Your task to perform on an android device: open app "Messages" Image 0: 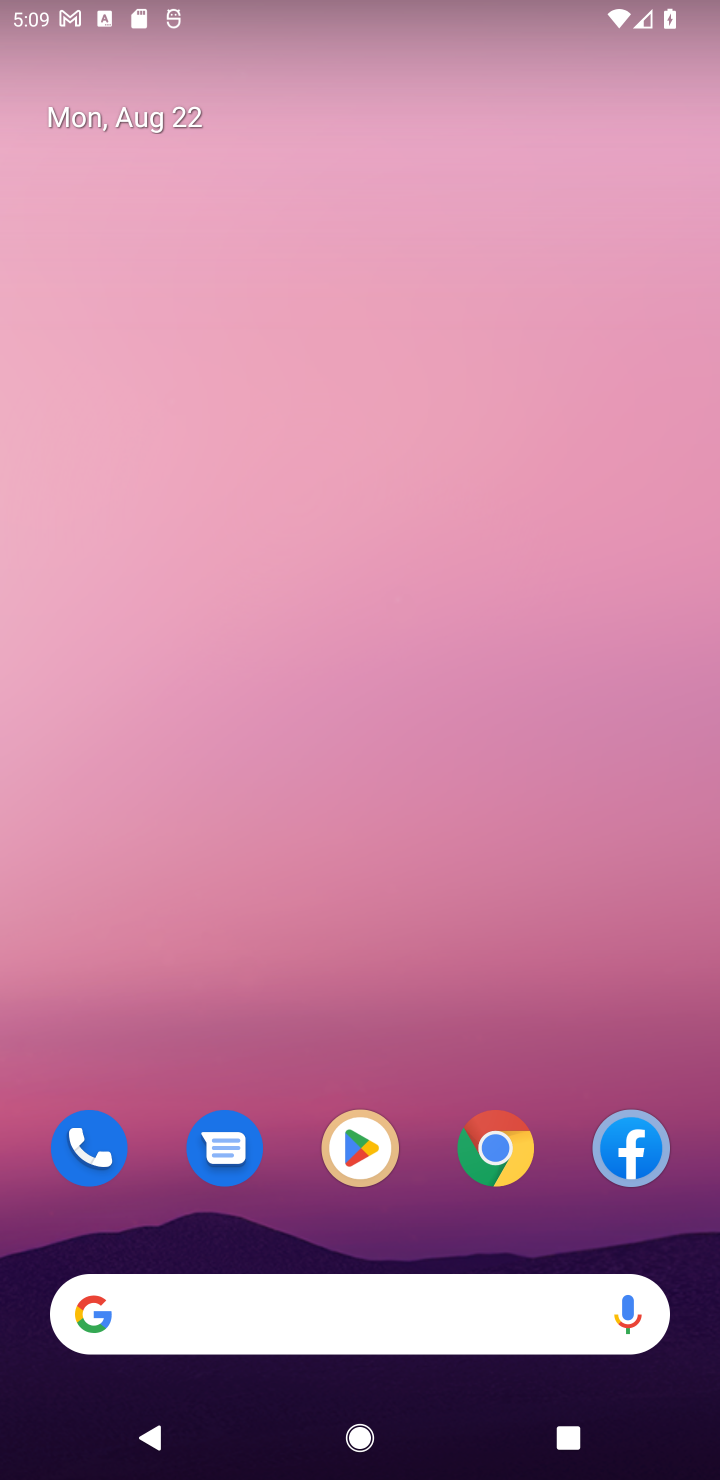
Step 0: drag from (397, 1109) to (455, 279)
Your task to perform on an android device: open app "Messages" Image 1: 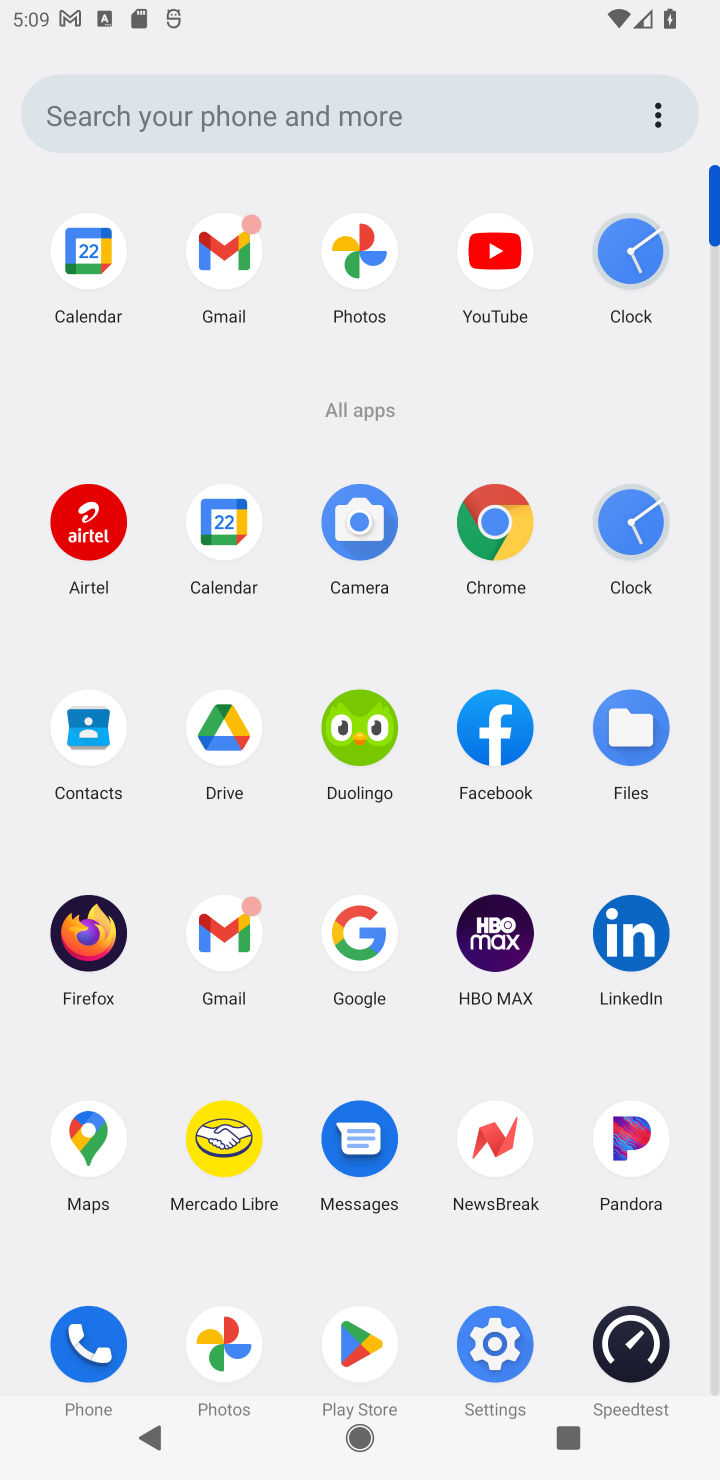
Step 1: click (356, 1150)
Your task to perform on an android device: open app "Messages" Image 2: 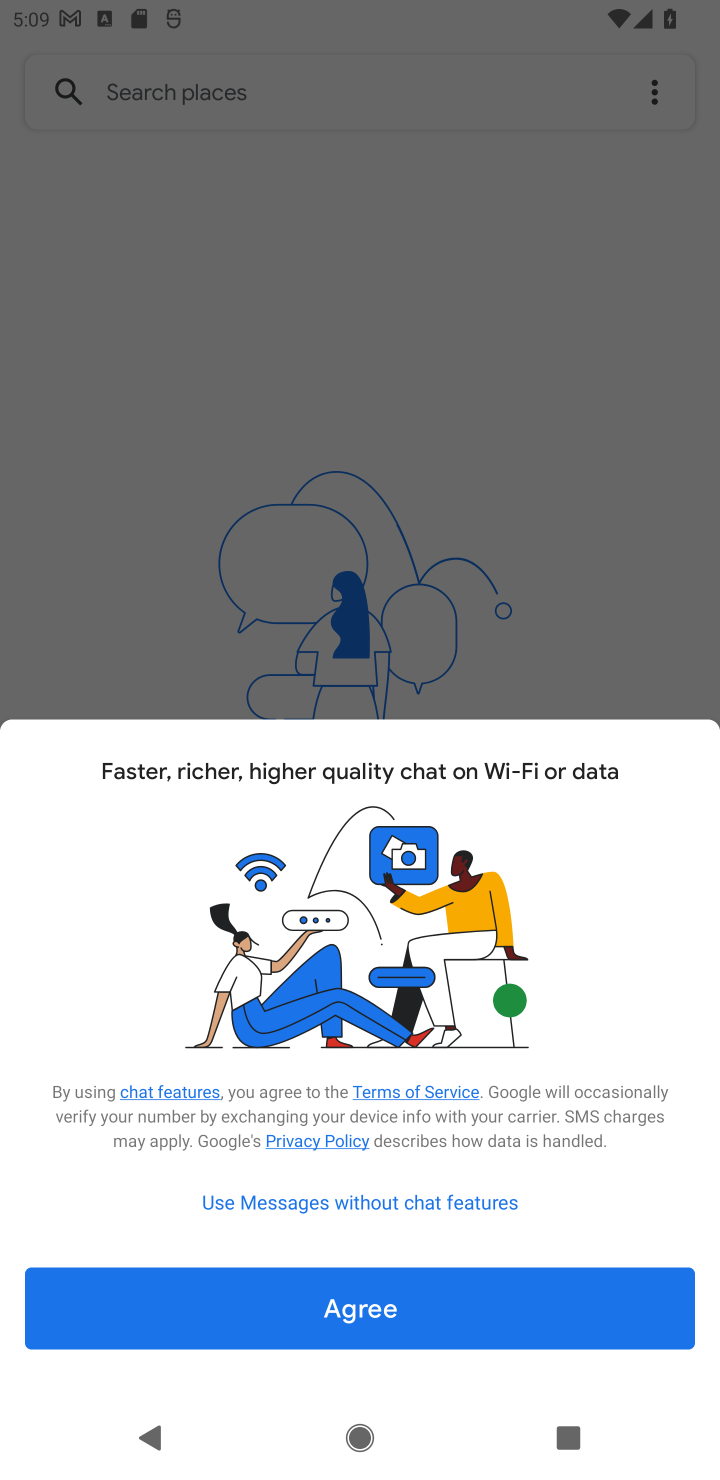
Step 2: click (354, 1322)
Your task to perform on an android device: open app "Messages" Image 3: 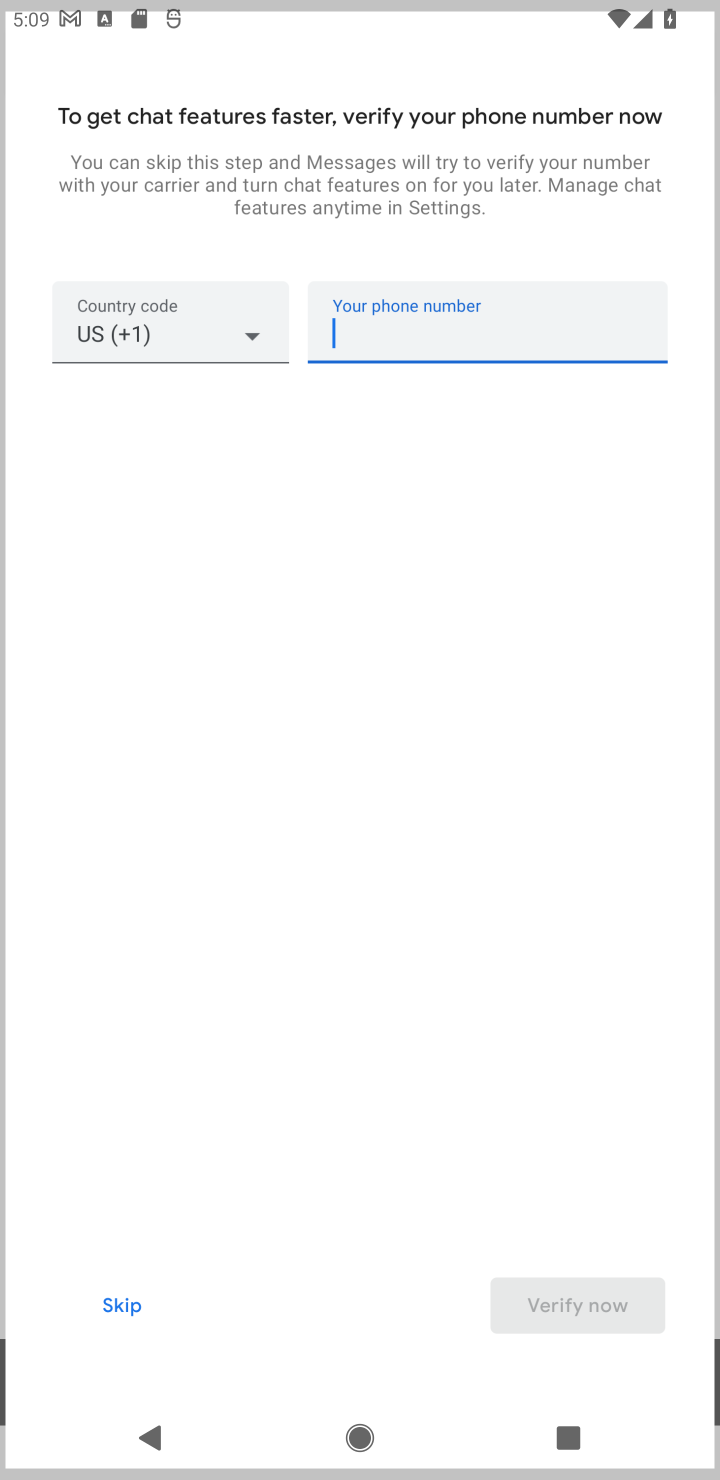
Step 3: task complete